Your task to perform on an android device: What's the weather? Image 0: 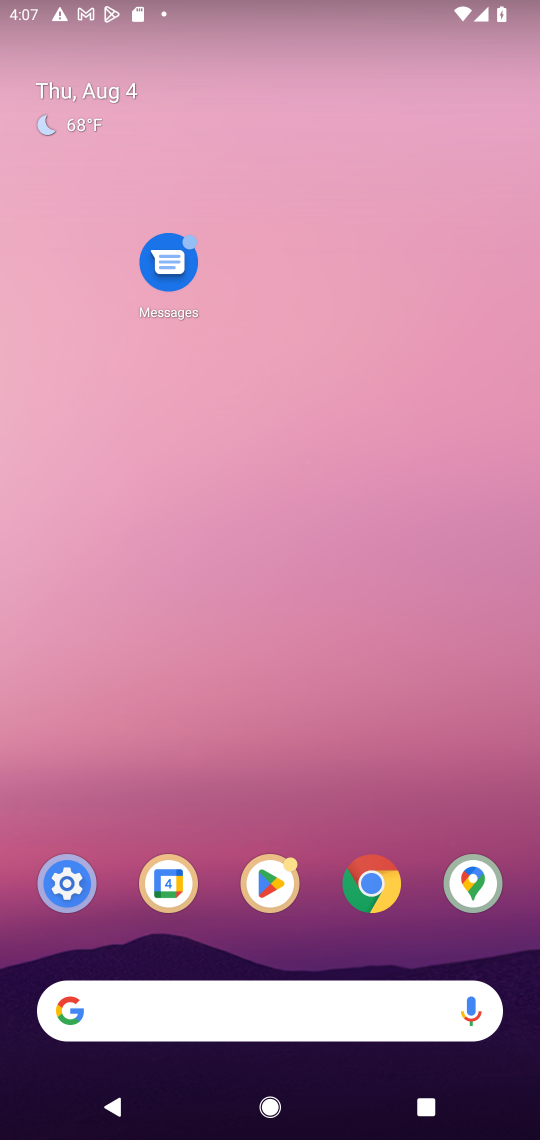
Step 0: drag from (309, 975) to (270, 39)
Your task to perform on an android device: What's the weather? Image 1: 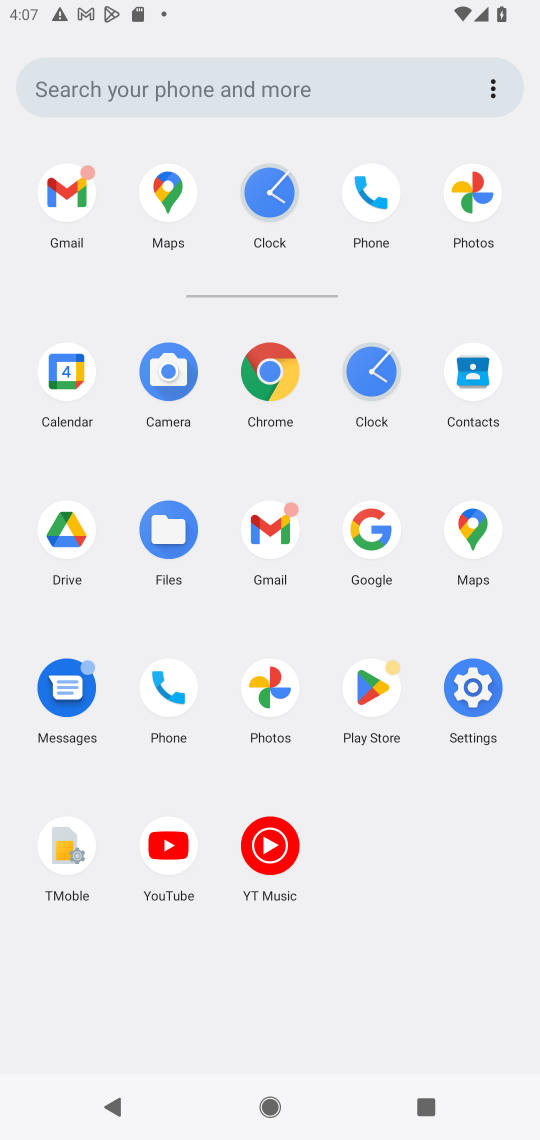
Step 1: click (371, 520)
Your task to perform on an android device: What's the weather? Image 2: 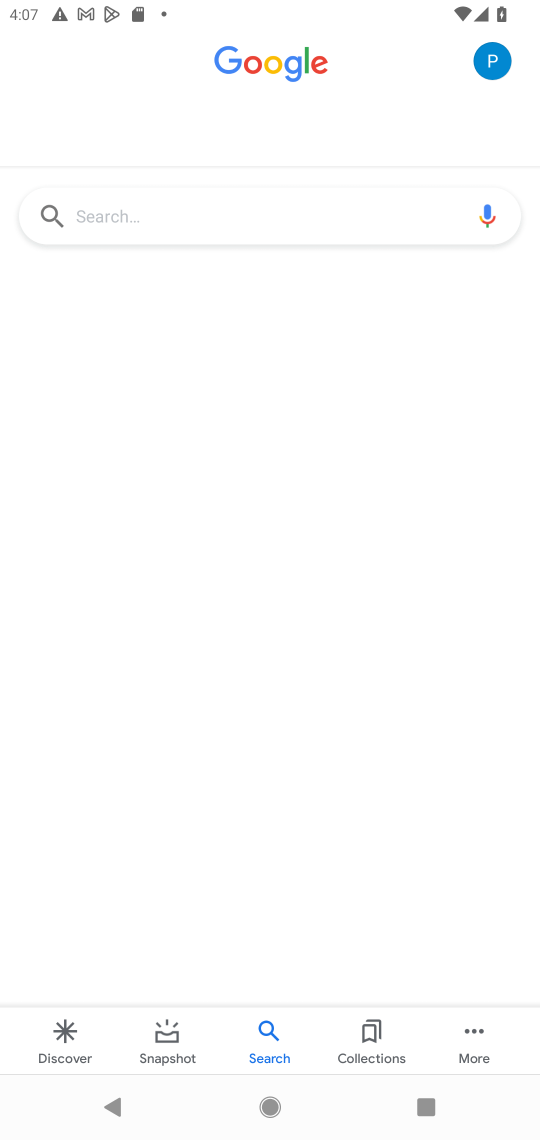
Step 2: click (302, 222)
Your task to perform on an android device: What's the weather? Image 3: 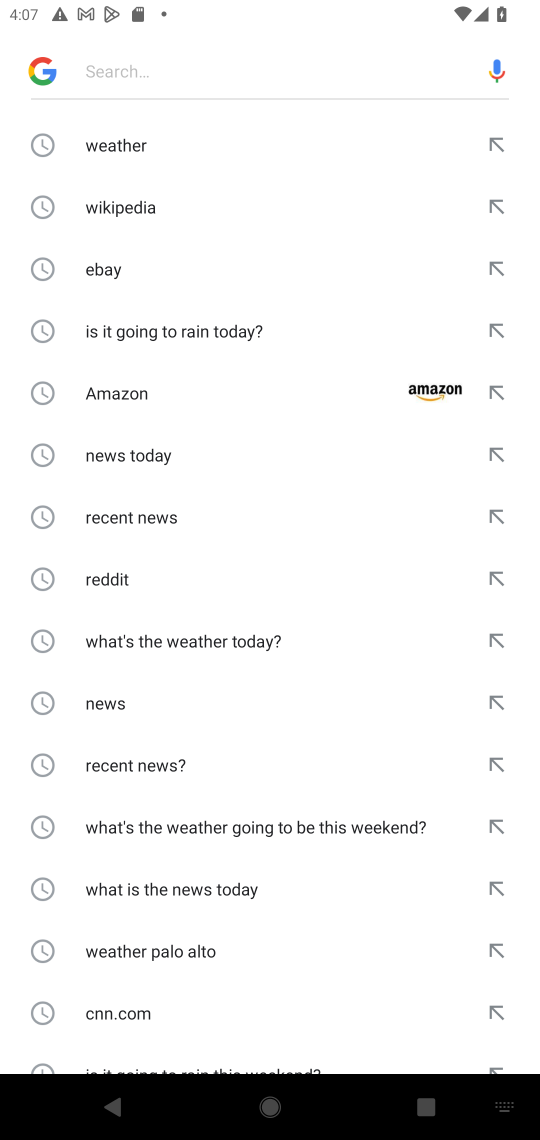
Step 3: click (116, 140)
Your task to perform on an android device: What's the weather? Image 4: 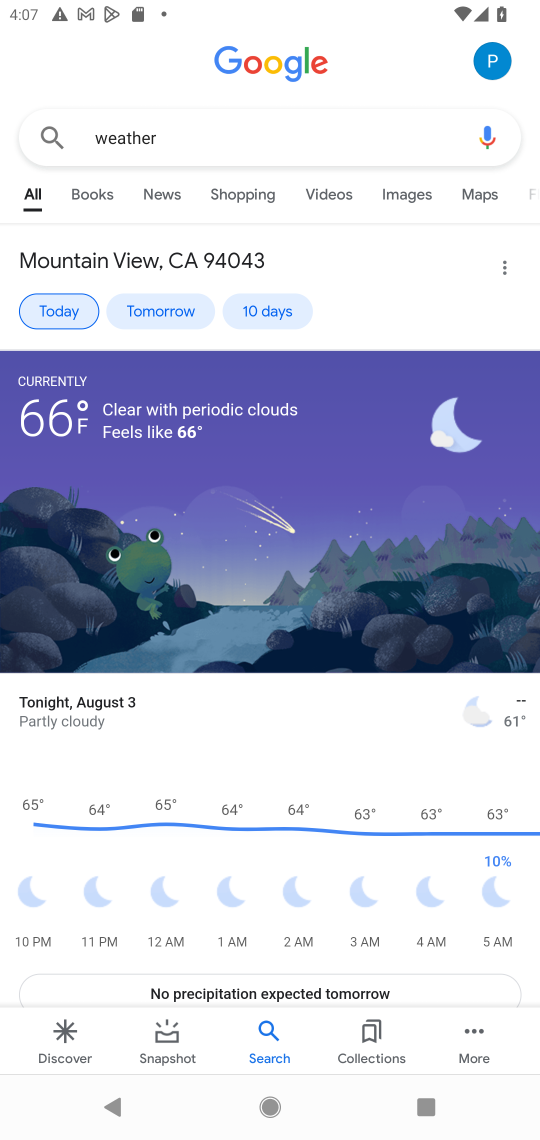
Step 4: click (44, 310)
Your task to perform on an android device: What's the weather? Image 5: 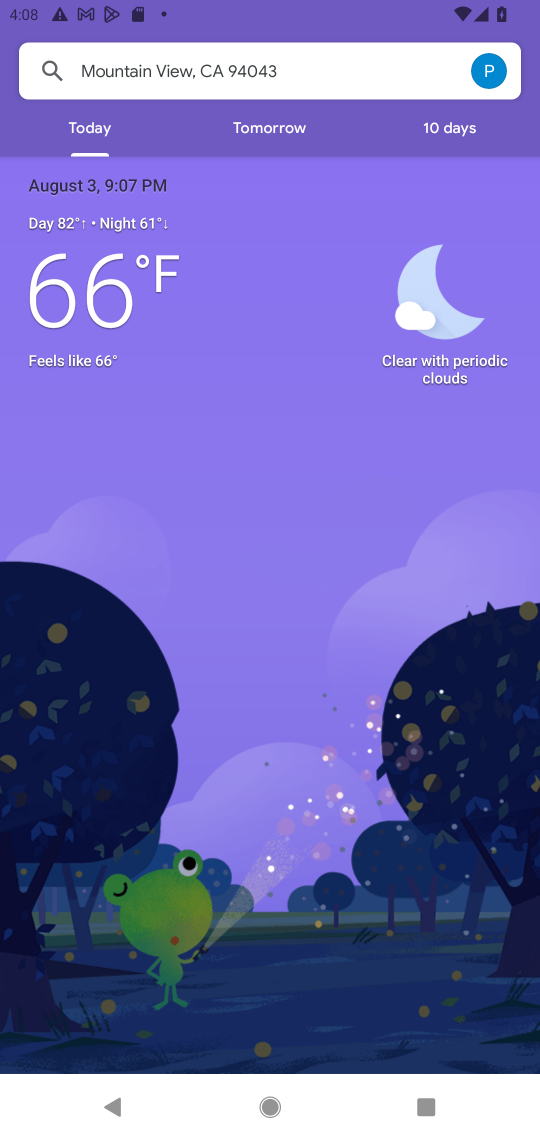
Step 5: task complete